Your task to perform on an android device: Open sound settings Image 0: 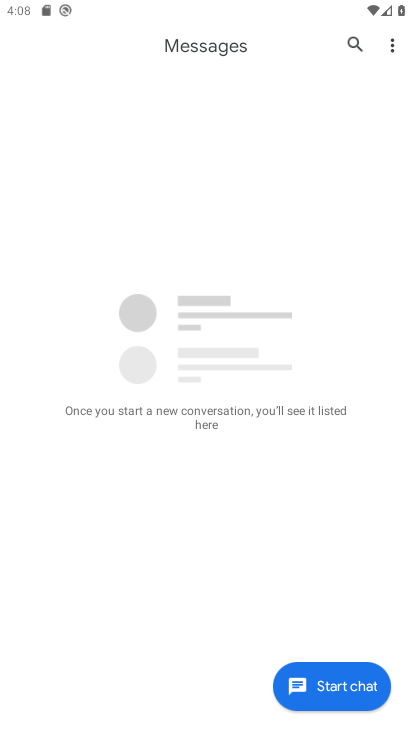
Step 0: press back button
Your task to perform on an android device: Open sound settings Image 1: 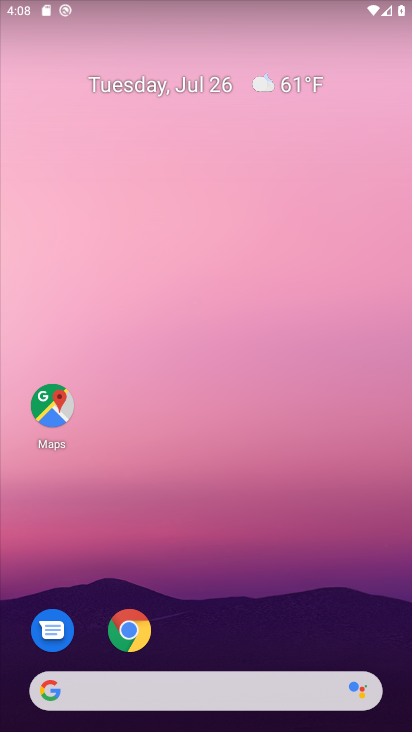
Step 1: drag from (222, 600) to (223, 369)
Your task to perform on an android device: Open sound settings Image 2: 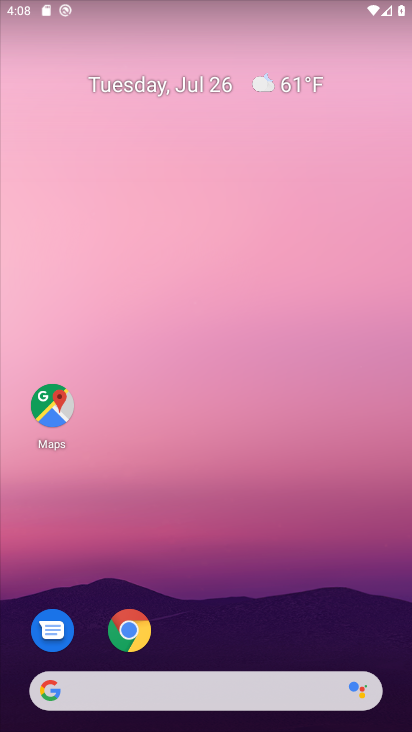
Step 2: drag from (261, 595) to (252, 442)
Your task to perform on an android device: Open sound settings Image 3: 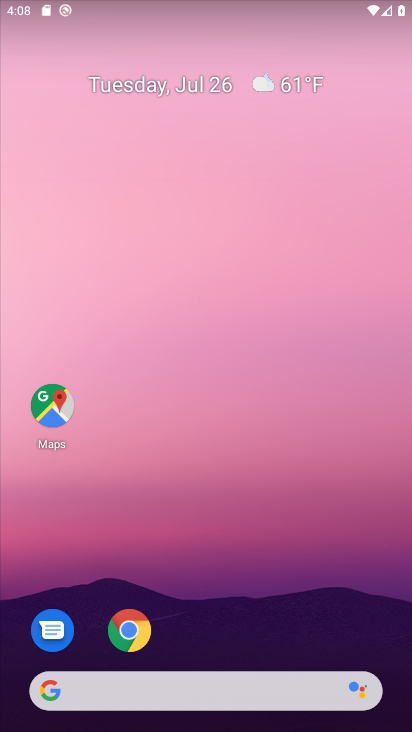
Step 3: drag from (167, 460) to (114, 35)
Your task to perform on an android device: Open sound settings Image 4: 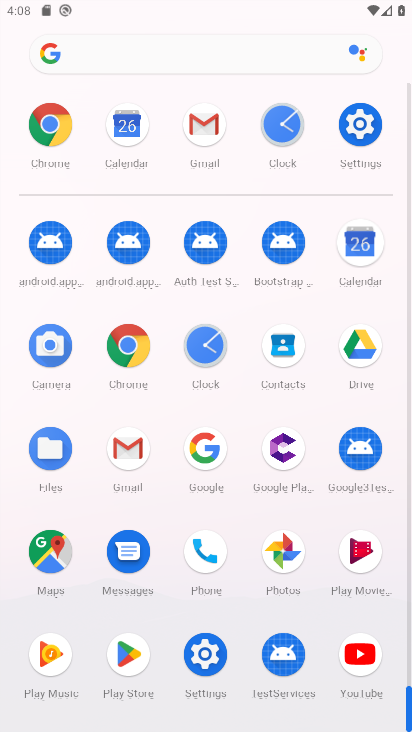
Step 4: drag from (203, 542) to (203, 192)
Your task to perform on an android device: Open sound settings Image 5: 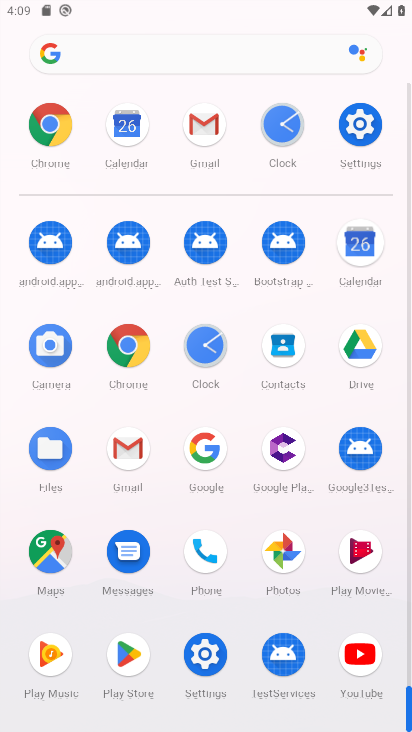
Step 5: click (208, 655)
Your task to perform on an android device: Open sound settings Image 6: 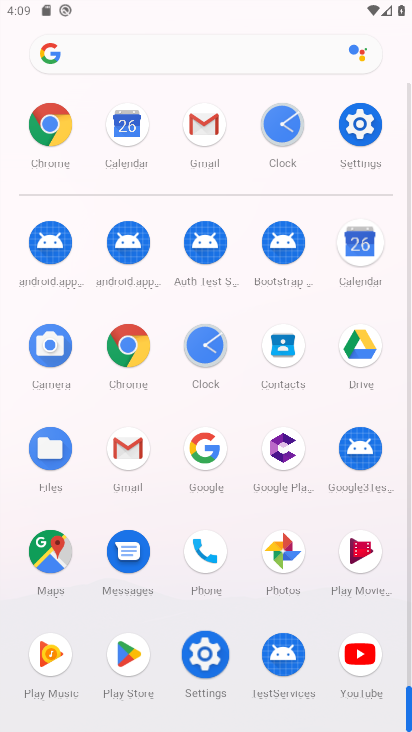
Step 6: click (208, 655)
Your task to perform on an android device: Open sound settings Image 7: 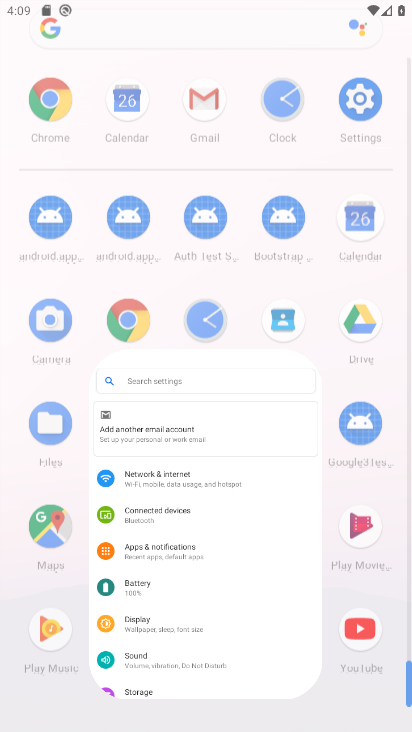
Step 7: click (208, 655)
Your task to perform on an android device: Open sound settings Image 8: 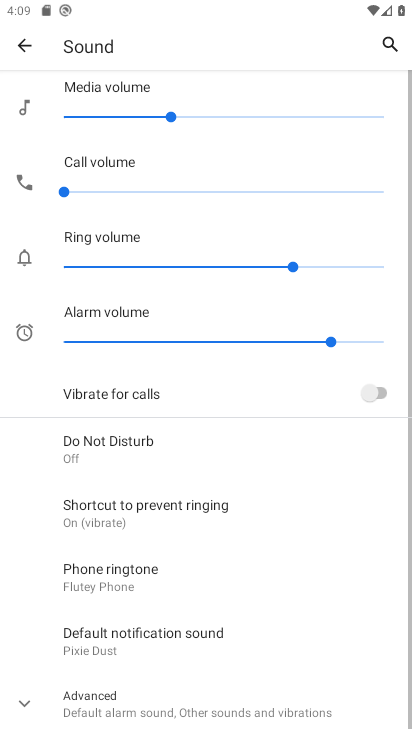
Step 8: click (23, 46)
Your task to perform on an android device: Open sound settings Image 9: 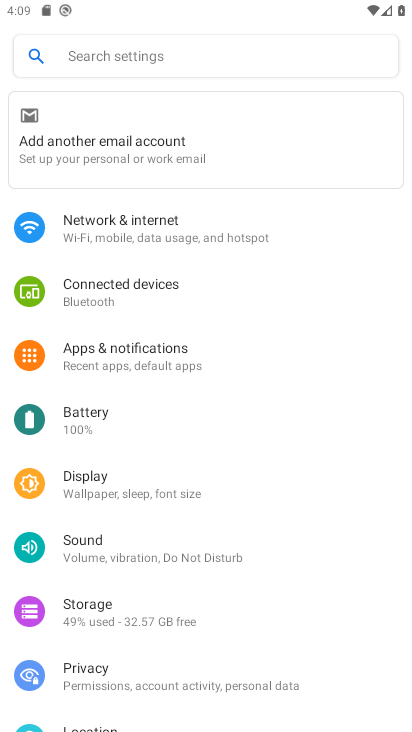
Step 9: click (85, 543)
Your task to perform on an android device: Open sound settings Image 10: 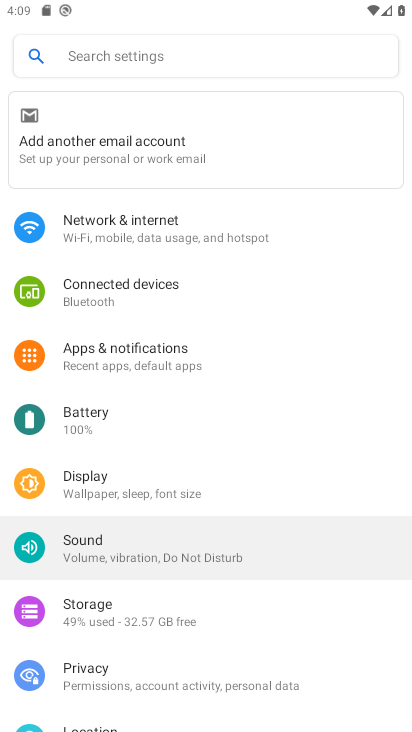
Step 10: click (87, 545)
Your task to perform on an android device: Open sound settings Image 11: 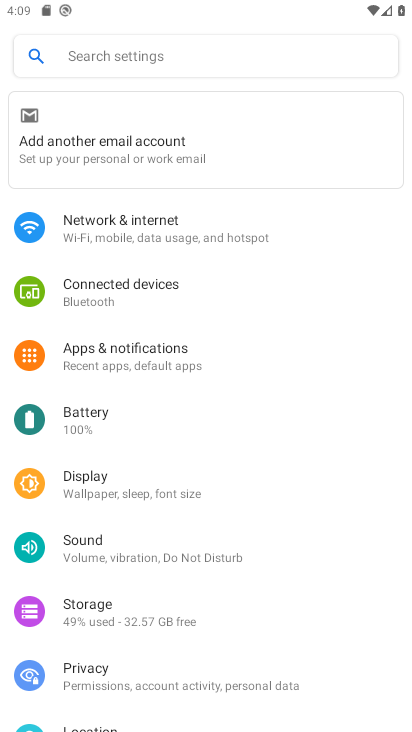
Step 11: click (88, 545)
Your task to perform on an android device: Open sound settings Image 12: 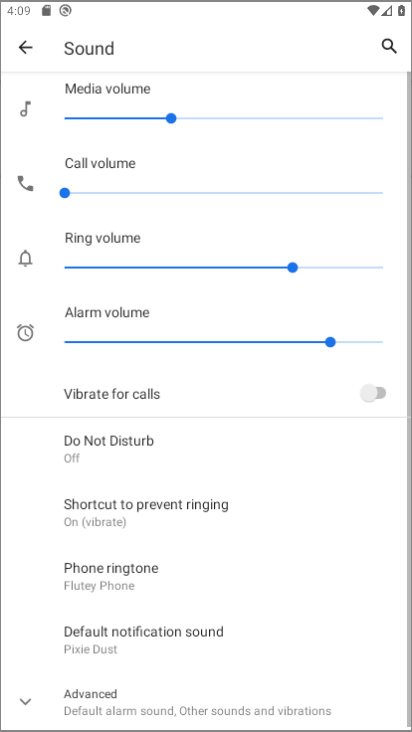
Step 12: click (88, 545)
Your task to perform on an android device: Open sound settings Image 13: 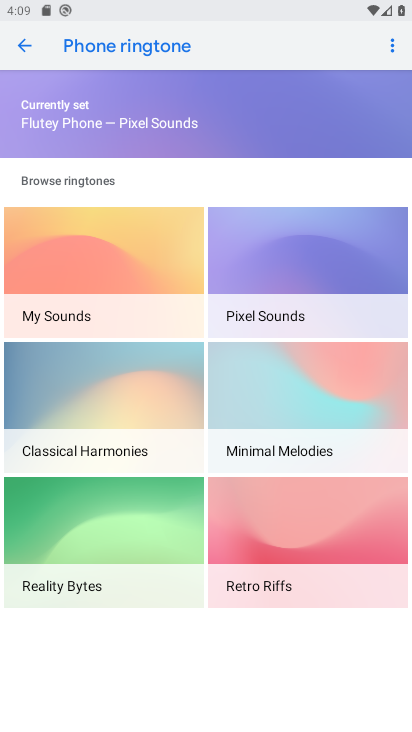
Step 13: click (29, 38)
Your task to perform on an android device: Open sound settings Image 14: 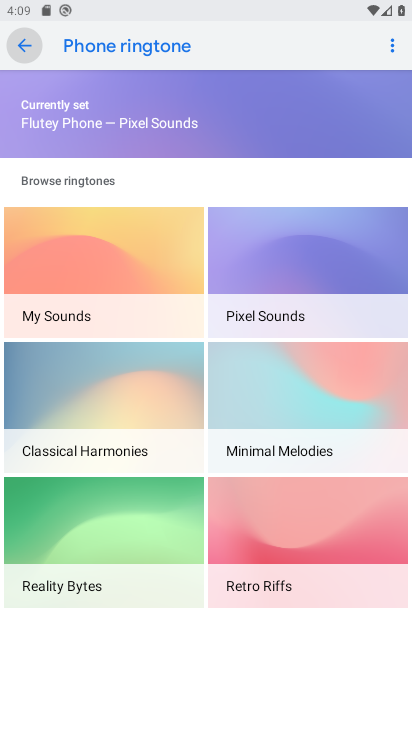
Step 14: click (26, 39)
Your task to perform on an android device: Open sound settings Image 15: 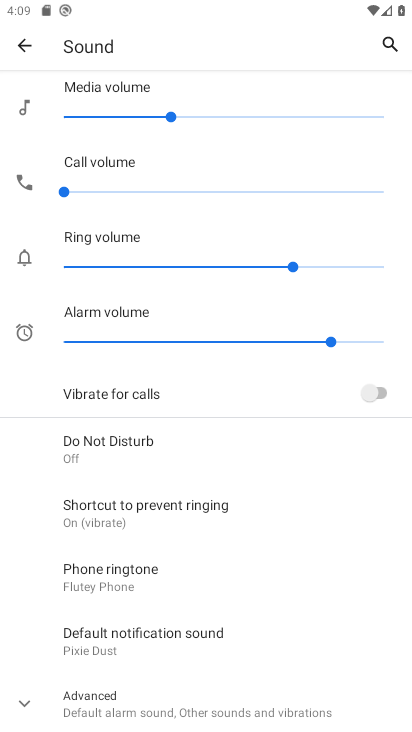
Step 15: task complete